Your task to perform on an android device: When is my next appointment? Image 0: 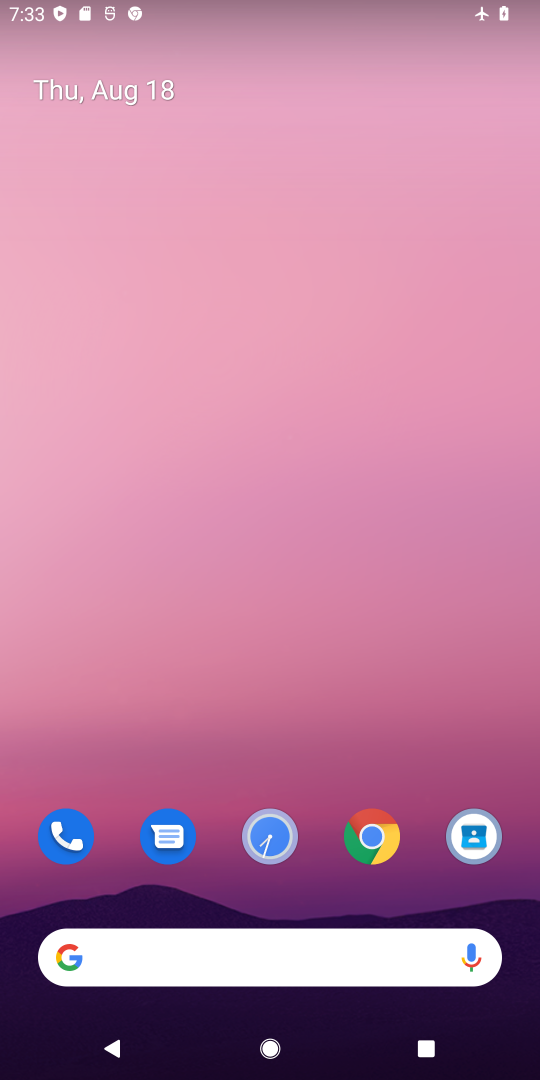
Step 0: drag from (275, 754) to (393, 39)
Your task to perform on an android device: When is my next appointment? Image 1: 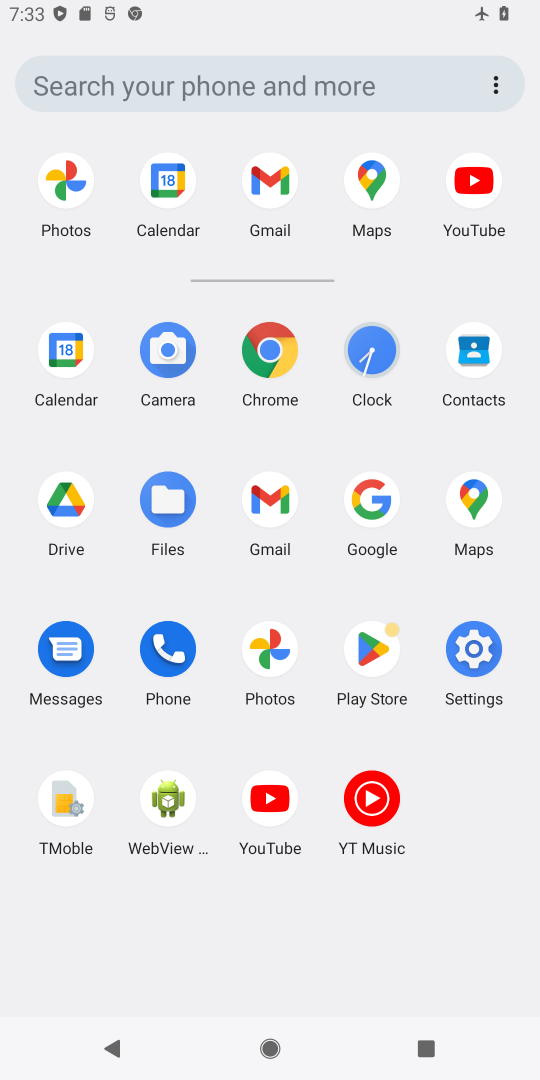
Step 1: click (65, 360)
Your task to perform on an android device: When is my next appointment? Image 2: 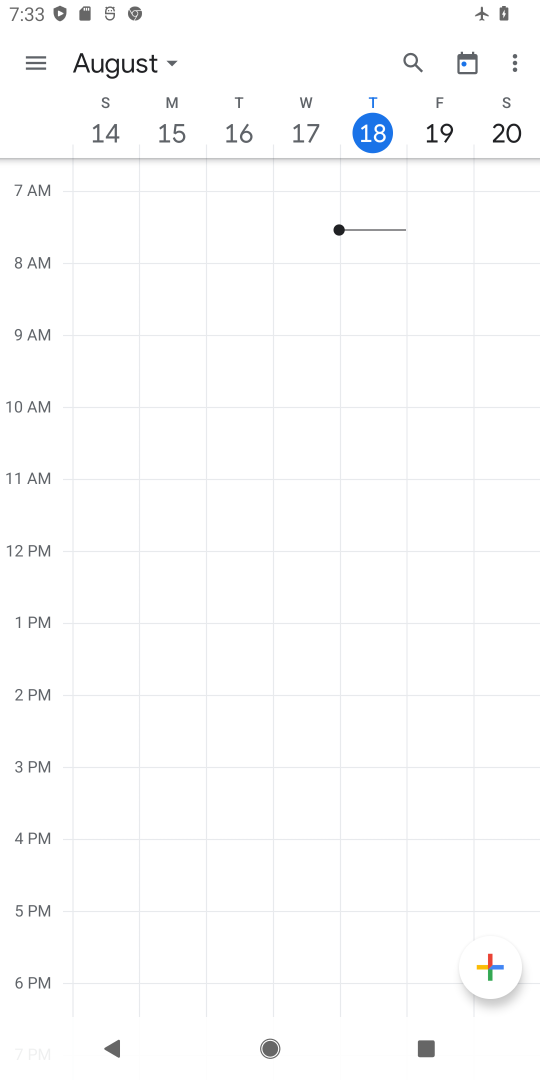
Step 2: task complete